Your task to perform on an android device: Is it going to rain today? Image 0: 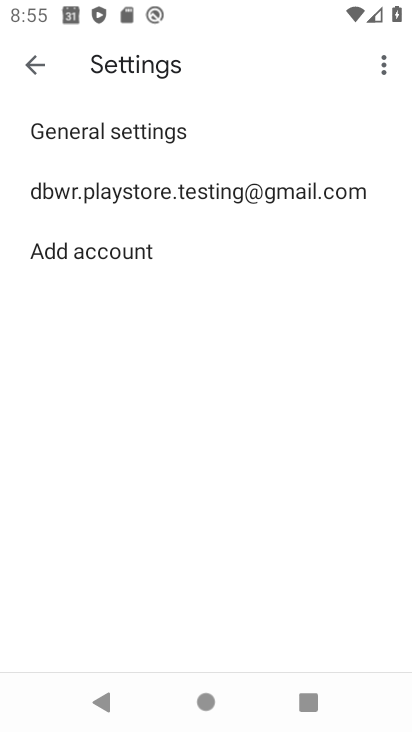
Step 0: press home button
Your task to perform on an android device: Is it going to rain today? Image 1: 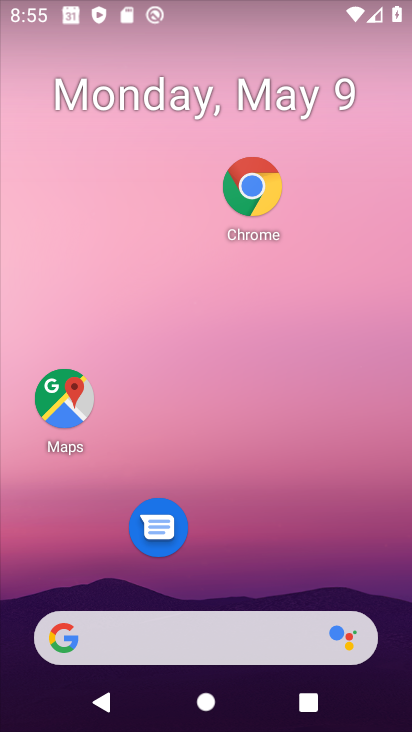
Step 1: drag from (41, 287) to (368, 304)
Your task to perform on an android device: Is it going to rain today? Image 2: 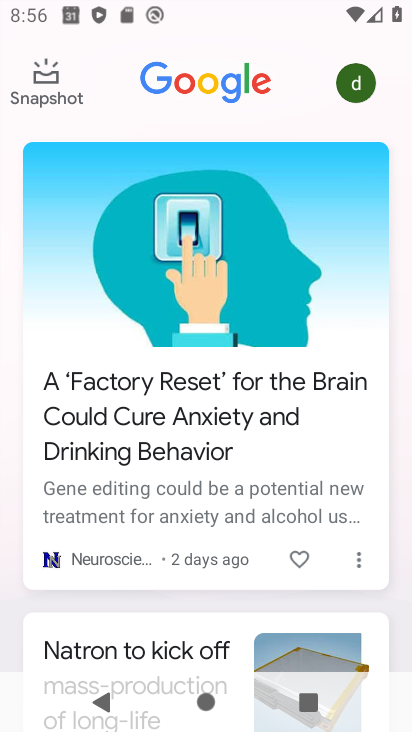
Step 2: press back button
Your task to perform on an android device: Is it going to rain today? Image 3: 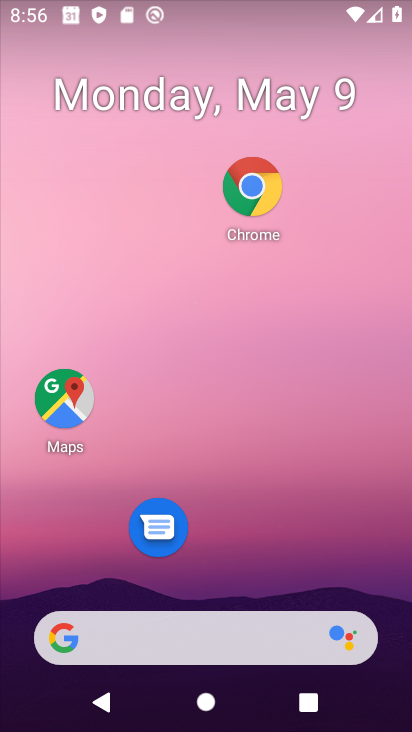
Step 3: drag from (205, 580) to (246, 92)
Your task to perform on an android device: Is it going to rain today? Image 4: 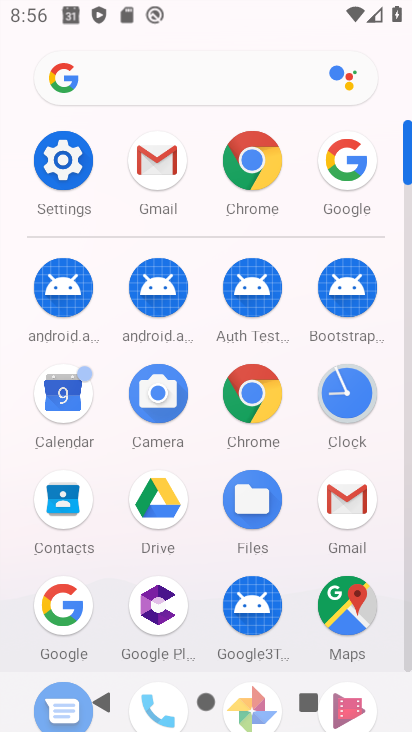
Step 4: click (59, 604)
Your task to perform on an android device: Is it going to rain today? Image 5: 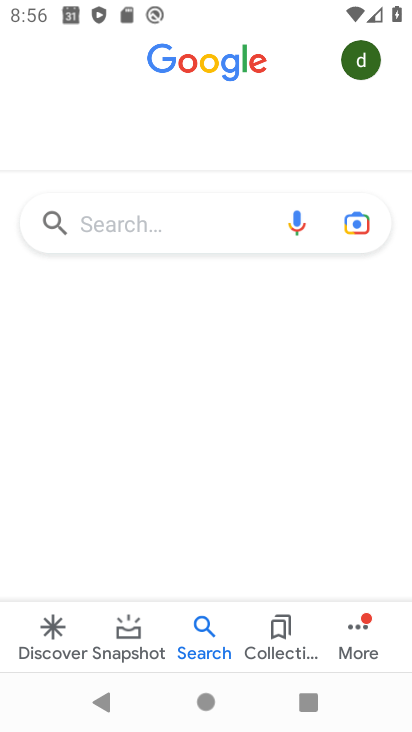
Step 5: click (120, 213)
Your task to perform on an android device: Is it going to rain today? Image 6: 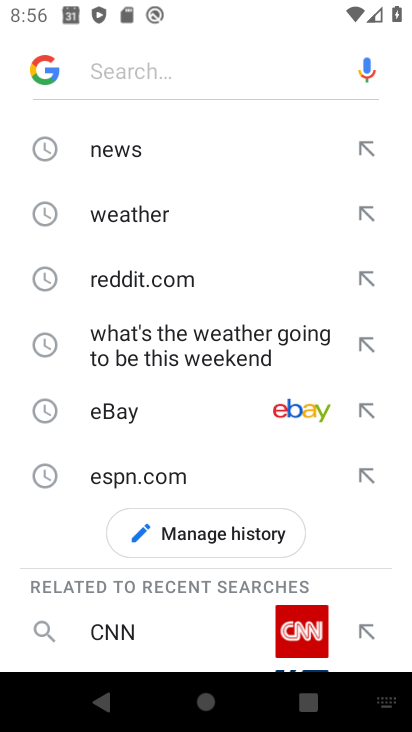
Step 6: click (152, 215)
Your task to perform on an android device: Is it going to rain today? Image 7: 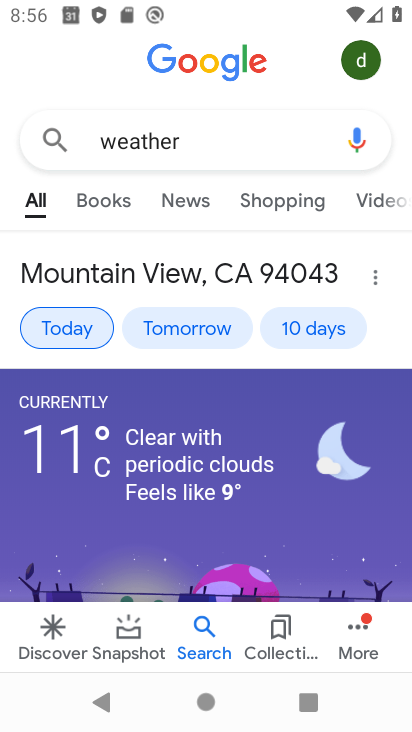
Step 7: drag from (180, 563) to (211, 363)
Your task to perform on an android device: Is it going to rain today? Image 8: 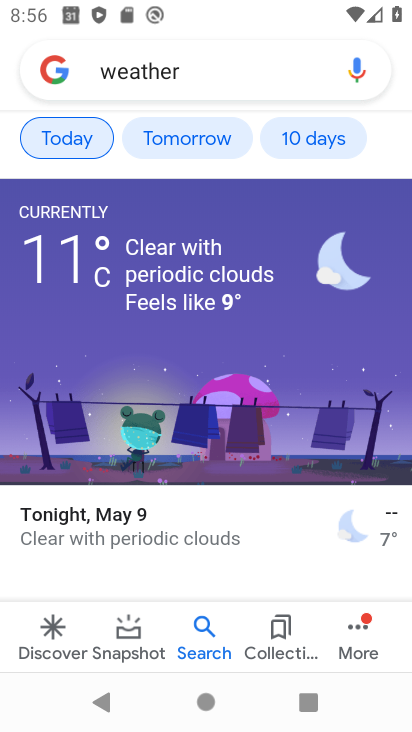
Step 8: click (214, 197)
Your task to perform on an android device: Is it going to rain today? Image 9: 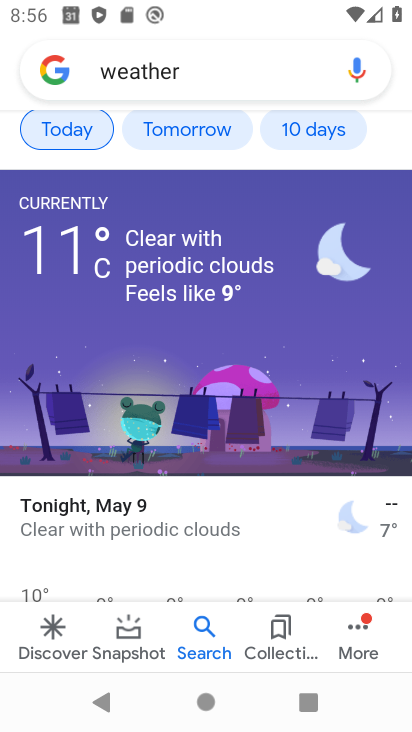
Step 9: task complete